Your task to perform on an android device: Search for pizza restaurants on Maps Image 0: 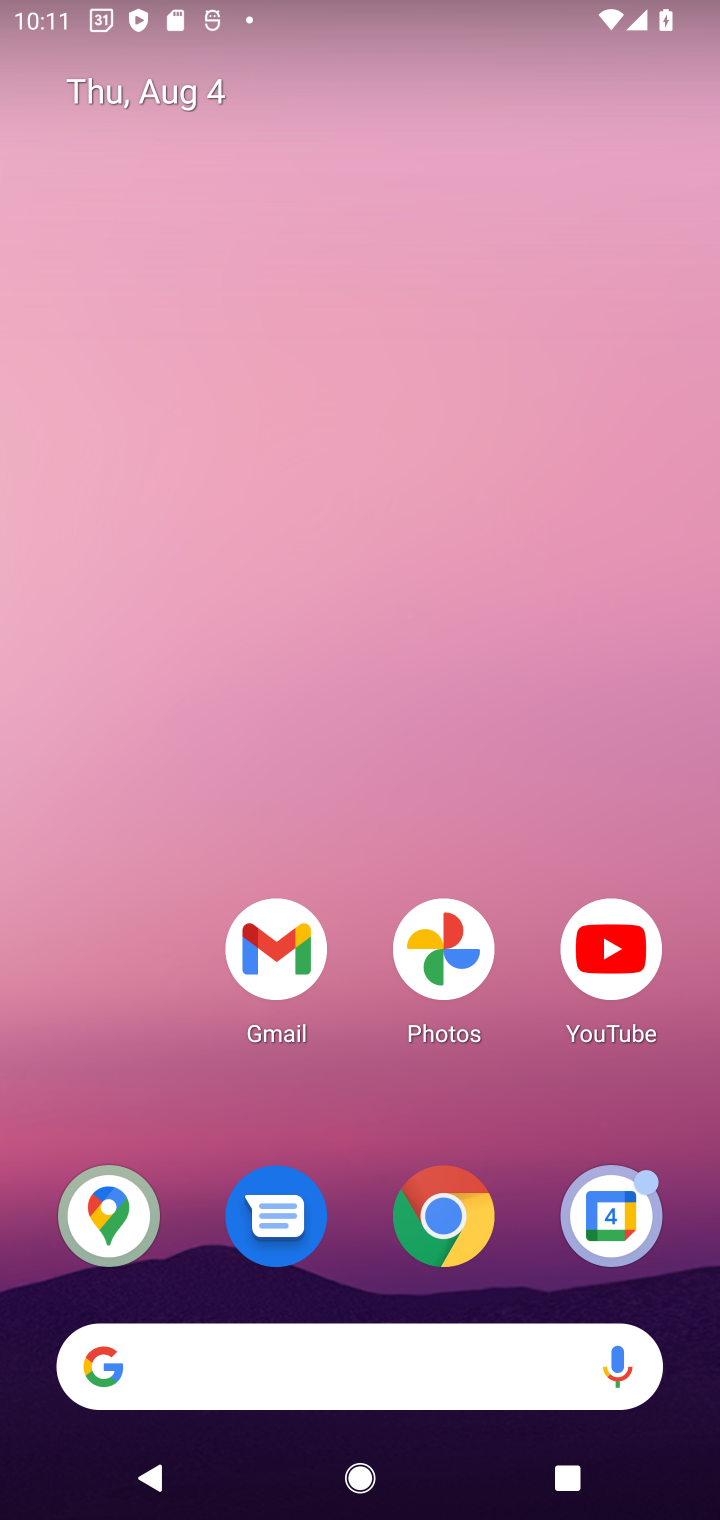
Step 0: click (112, 1211)
Your task to perform on an android device: Search for pizza restaurants on Maps Image 1: 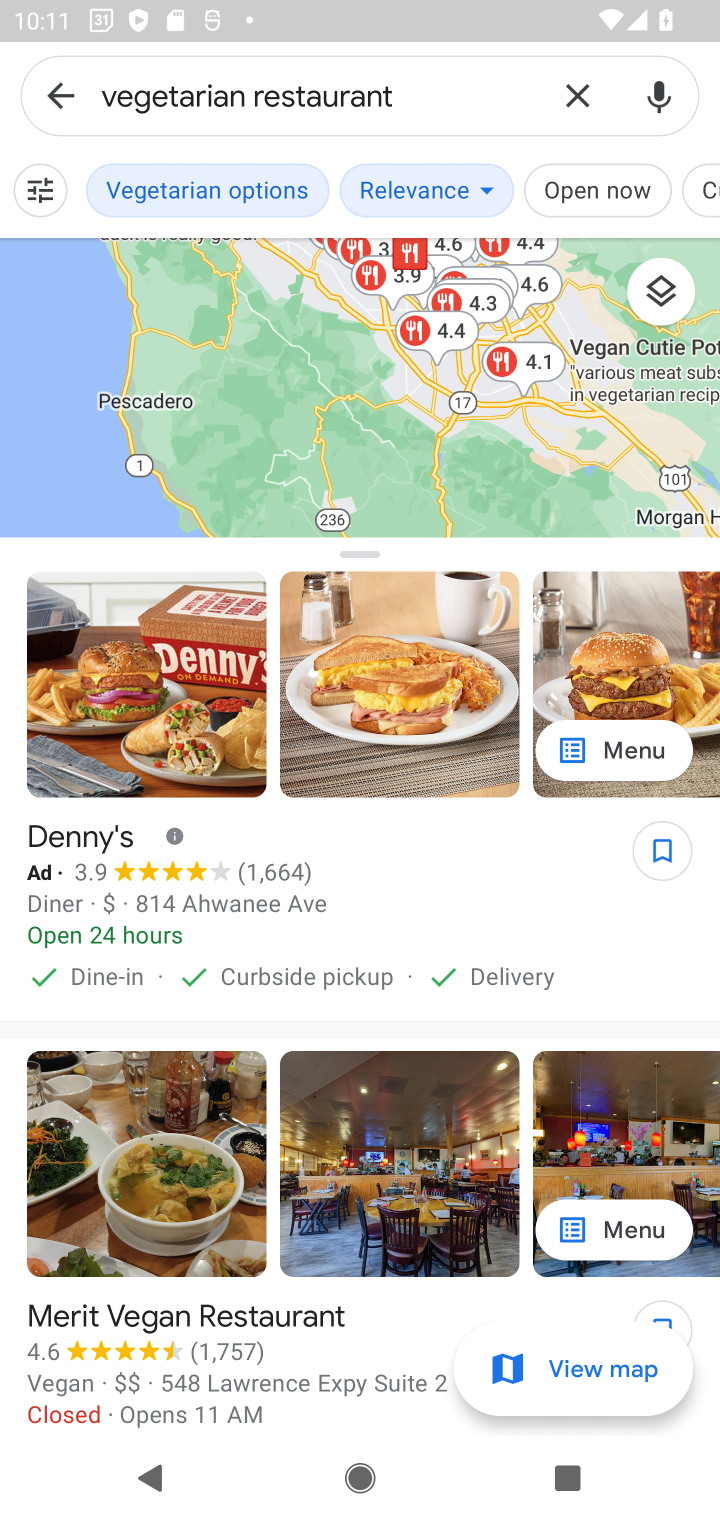
Step 1: click (569, 97)
Your task to perform on an android device: Search for pizza restaurants on Maps Image 2: 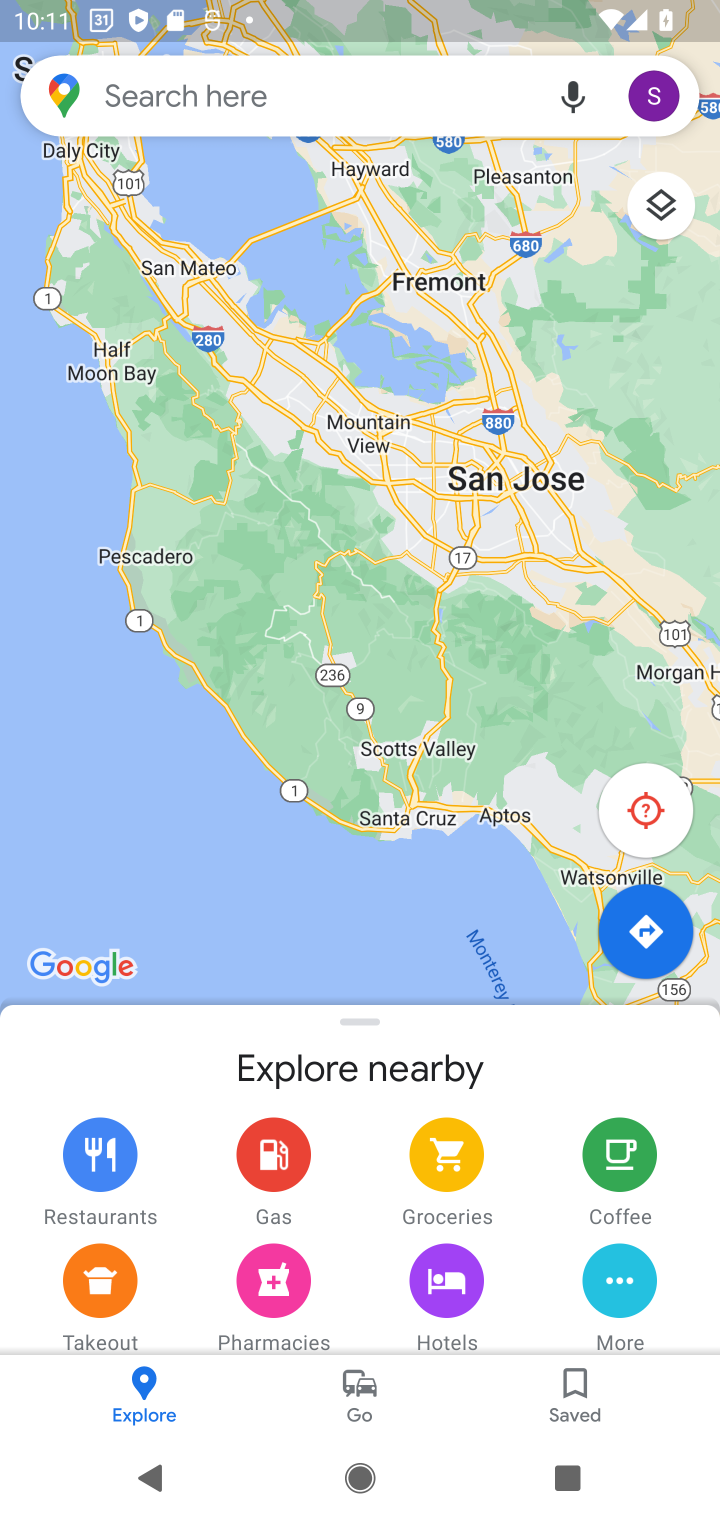
Step 2: click (384, 105)
Your task to perform on an android device: Search for pizza restaurants on Maps Image 3: 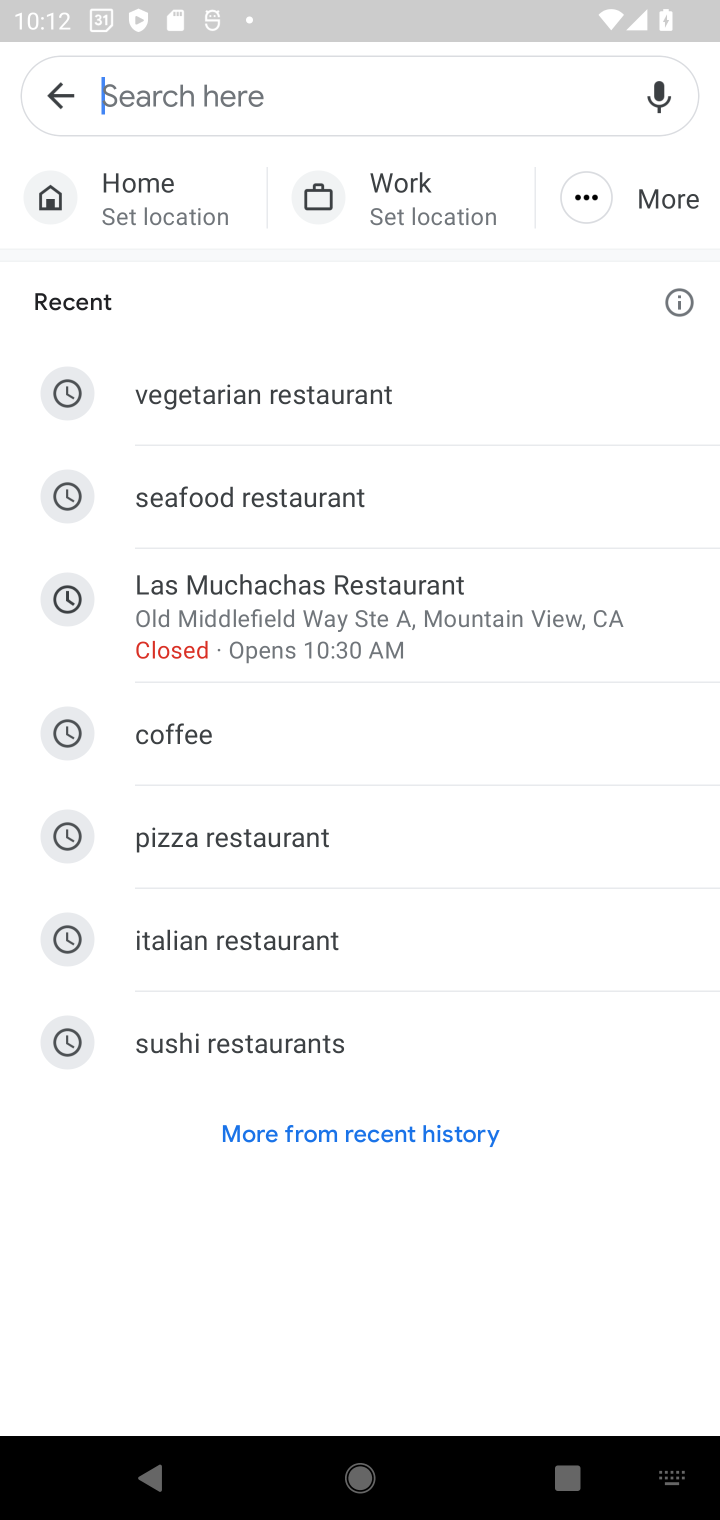
Step 3: type "pizza restaurants"
Your task to perform on an android device: Search for pizza restaurants on Maps Image 4: 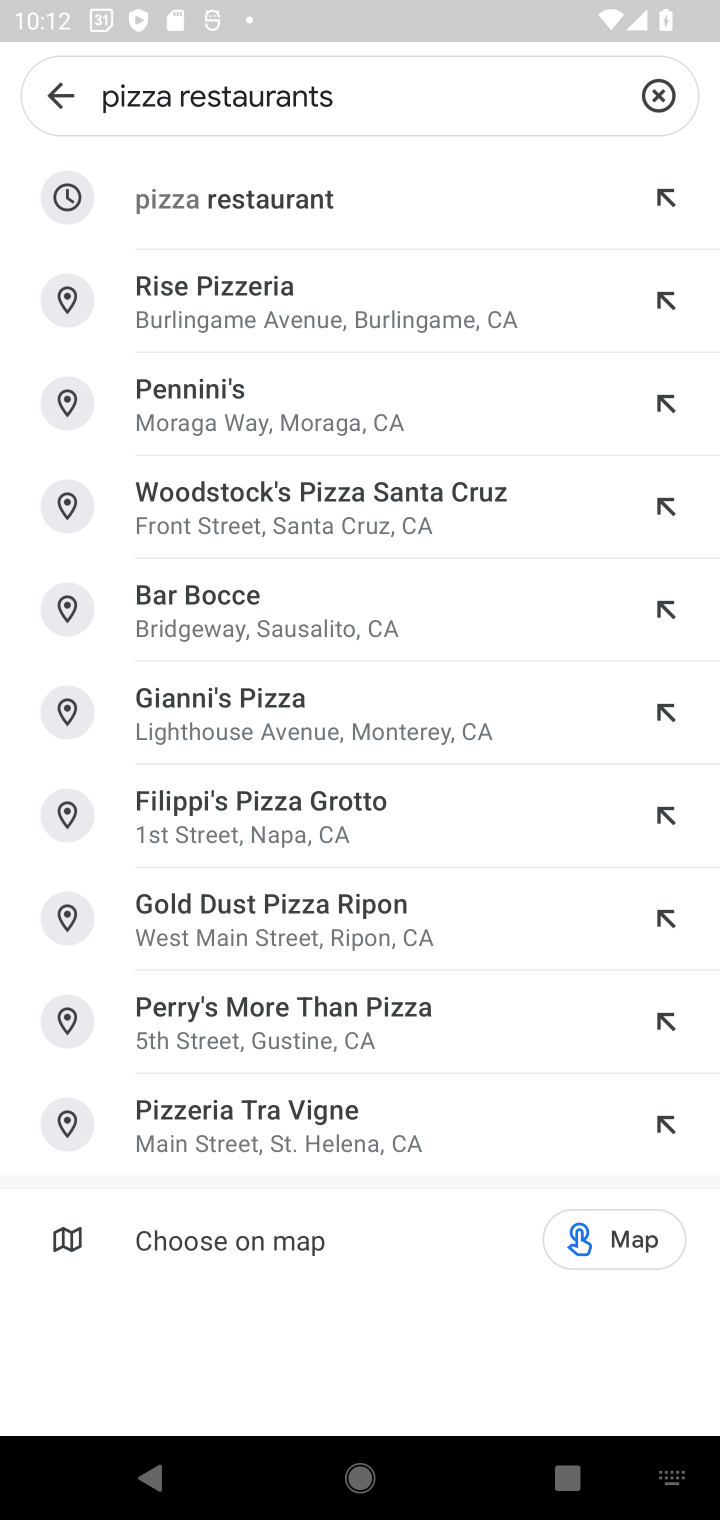
Step 4: click (290, 214)
Your task to perform on an android device: Search for pizza restaurants on Maps Image 5: 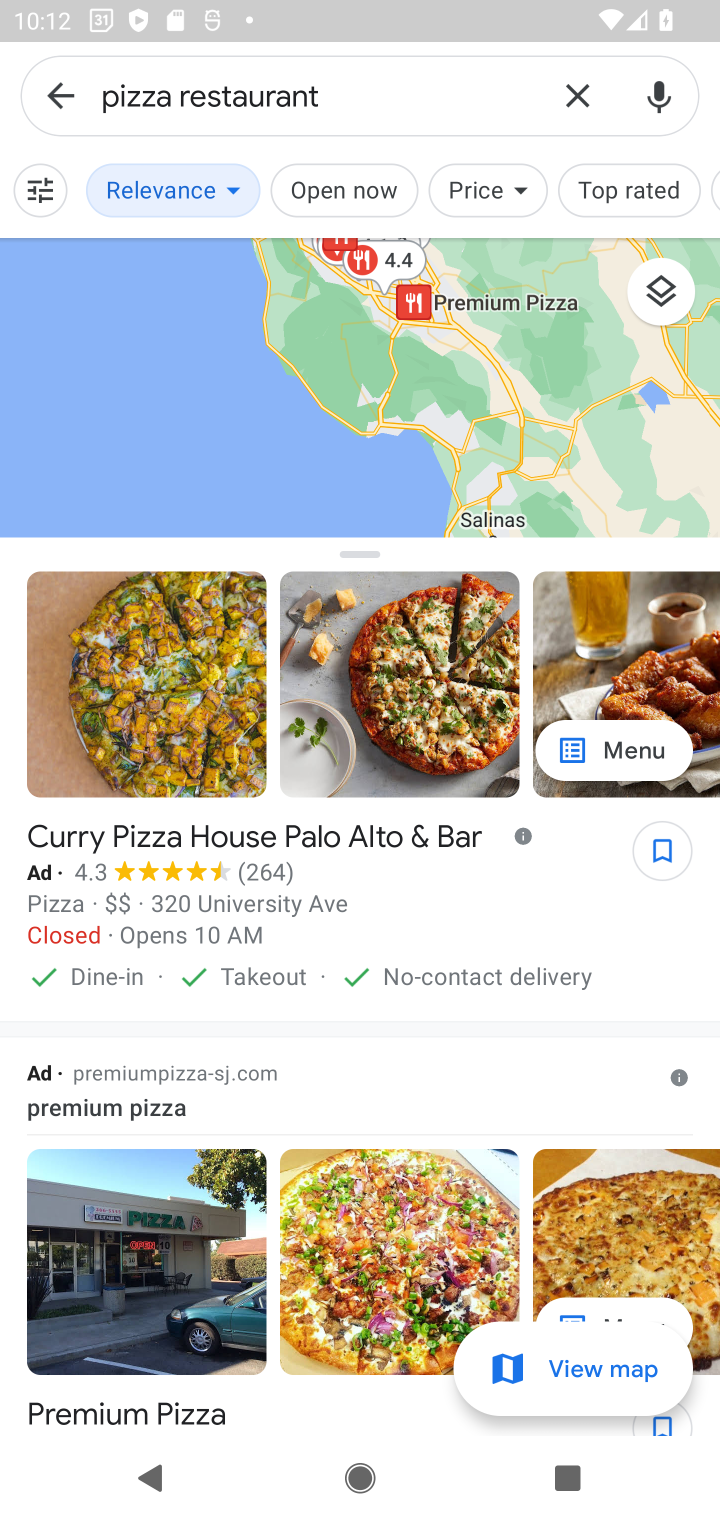
Step 5: task complete